Your task to perform on an android device: turn off sleep mode Image 0: 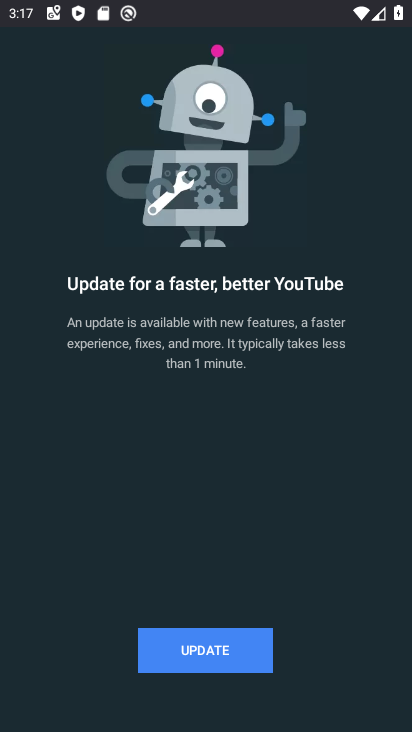
Step 0: press home button
Your task to perform on an android device: turn off sleep mode Image 1: 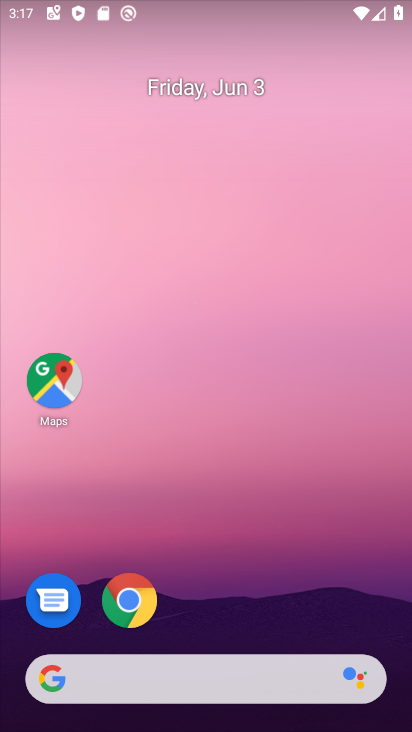
Step 1: drag from (252, 626) to (351, 5)
Your task to perform on an android device: turn off sleep mode Image 2: 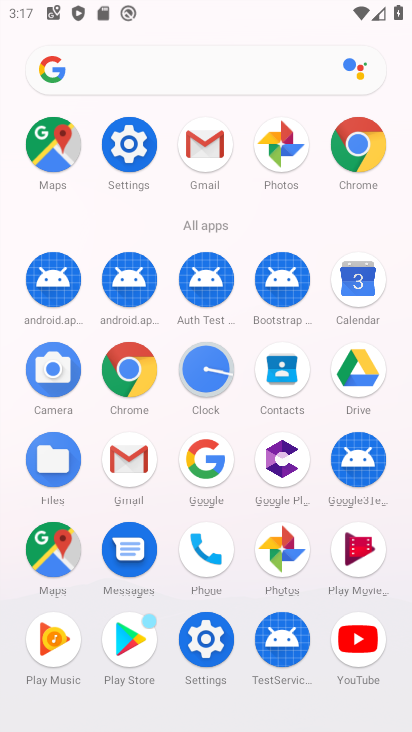
Step 2: click (131, 144)
Your task to perform on an android device: turn off sleep mode Image 3: 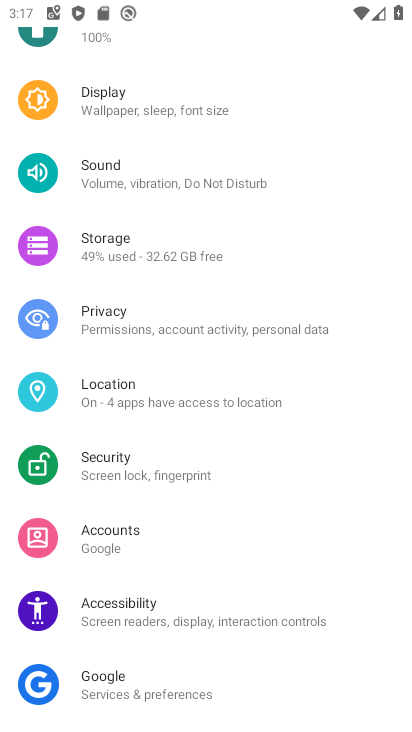
Step 3: drag from (171, 115) to (181, 638)
Your task to perform on an android device: turn off sleep mode Image 4: 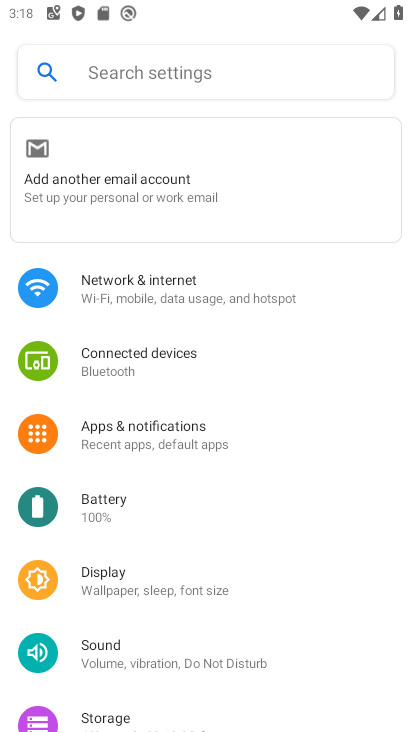
Step 4: click (226, 71)
Your task to perform on an android device: turn off sleep mode Image 5: 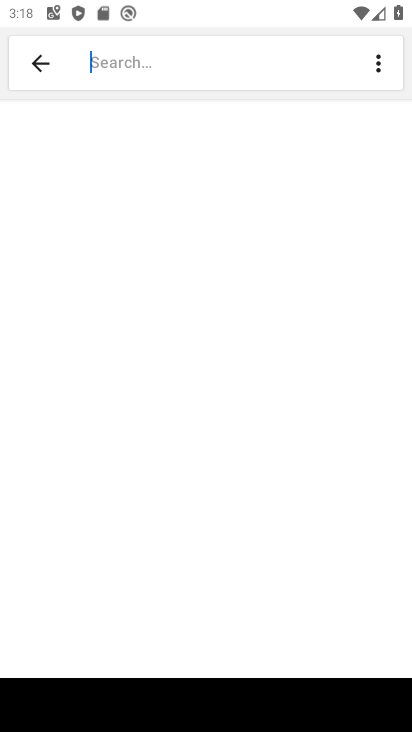
Step 5: type "sleep mode"
Your task to perform on an android device: turn off sleep mode Image 6: 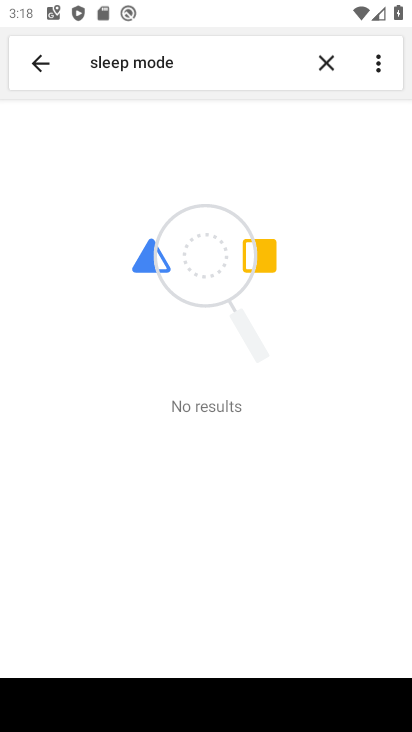
Step 6: click (120, 140)
Your task to perform on an android device: turn off sleep mode Image 7: 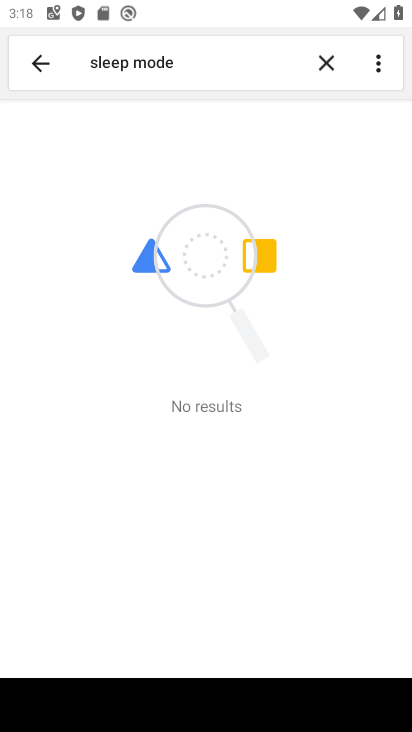
Step 7: click (120, 138)
Your task to perform on an android device: turn off sleep mode Image 8: 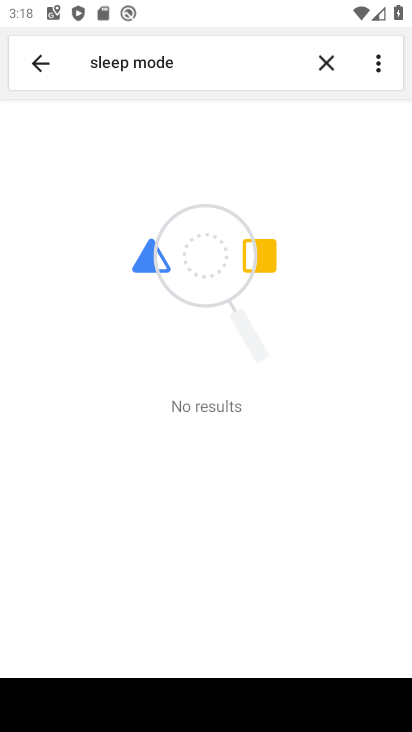
Step 8: task complete